Your task to perform on an android device: change the clock display to analog Image 0: 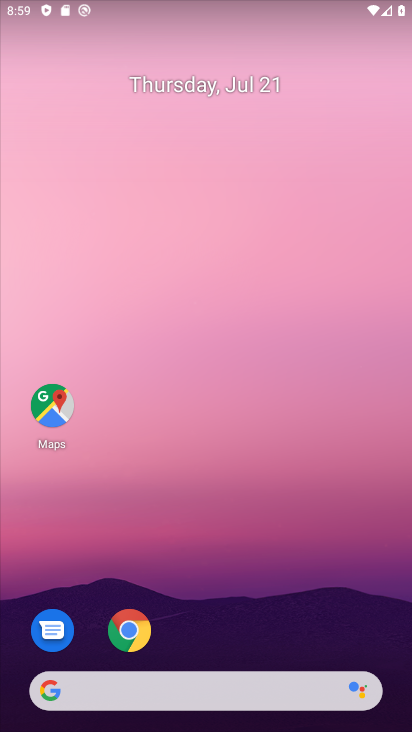
Step 0: drag from (205, 710) to (150, 191)
Your task to perform on an android device: change the clock display to analog Image 1: 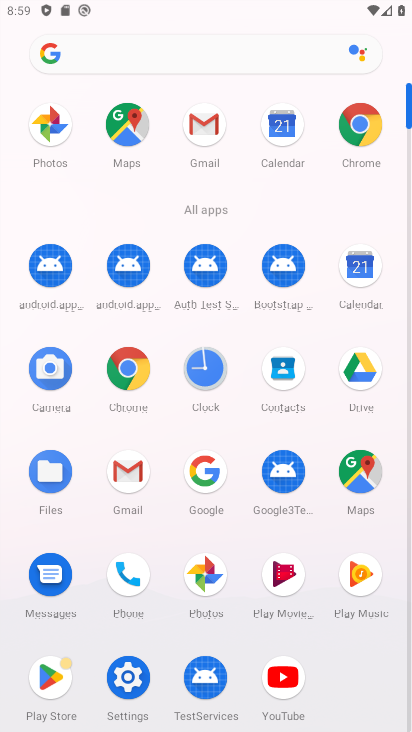
Step 1: click (198, 364)
Your task to perform on an android device: change the clock display to analog Image 2: 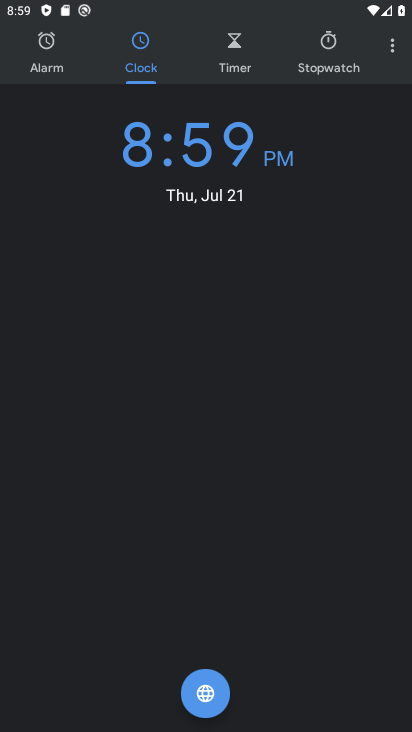
Step 2: click (393, 51)
Your task to perform on an android device: change the clock display to analog Image 3: 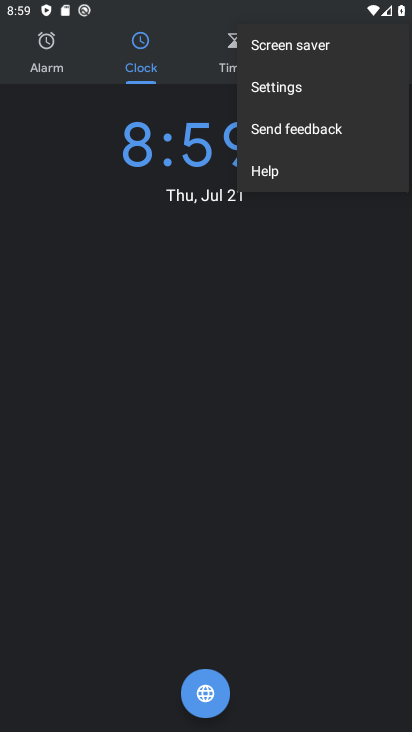
Step 3: click (281, 87)
Your task to perform on an android device: change the clock display to analog Image 4: 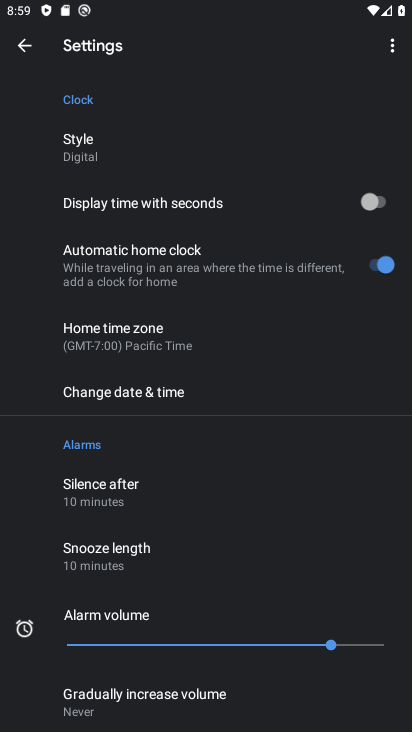
Step 4: click (86, 151)
Your task to perform on an android device: change the clock display to analog Image 5: 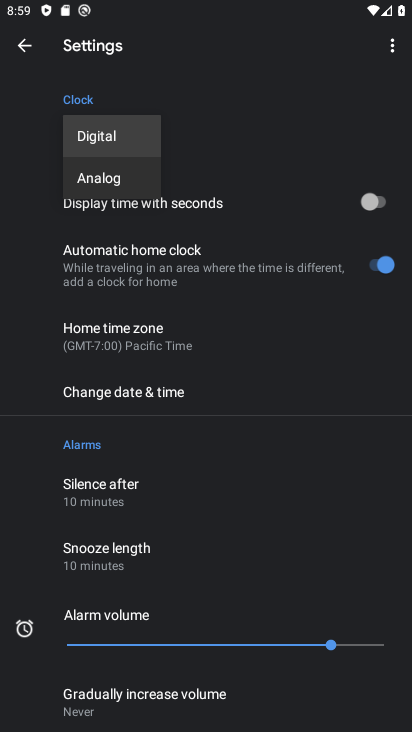
Step 5: click (90, 175)
Your task to perform on an android device: change the clock display to analog Image 6: 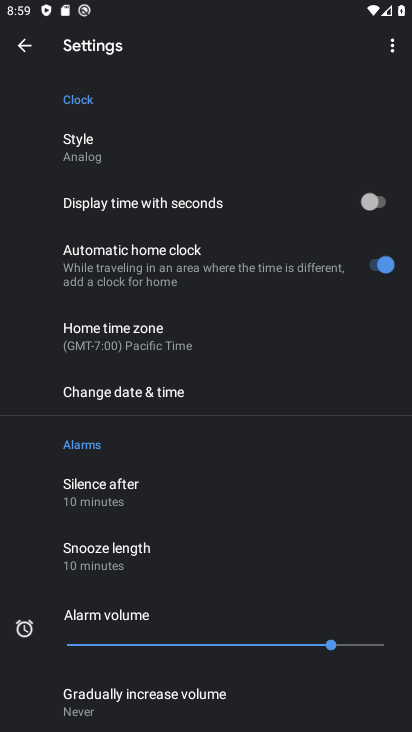
Step 6: task complete